Your task to perform on an android device: turn notification dots off Image 0: 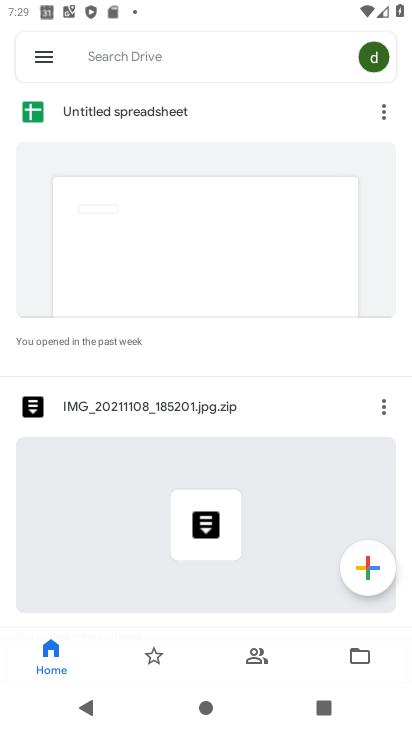
Step 0: press back button
Your task to perform on an android device: turn notification dots off Image 1: 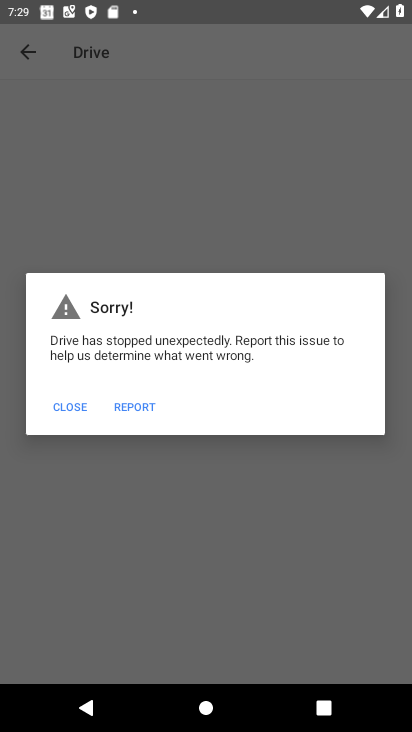
Step 1: press home button
Your task to perform on an android device: turn notification dots off Image 2: 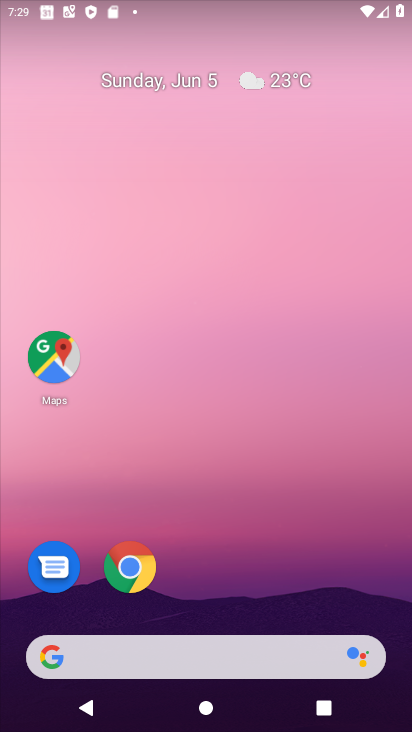
Step 2: drag from (384, 639) to (305, 94)
Your task to perform on an android device: turn notification dots off Image 3: 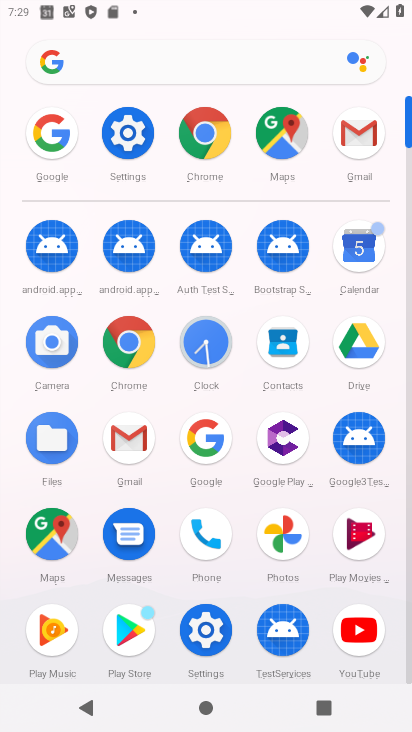
Step 3: click (130, 147)
Your task to perform on an android device: turn notification dots off Image 4: 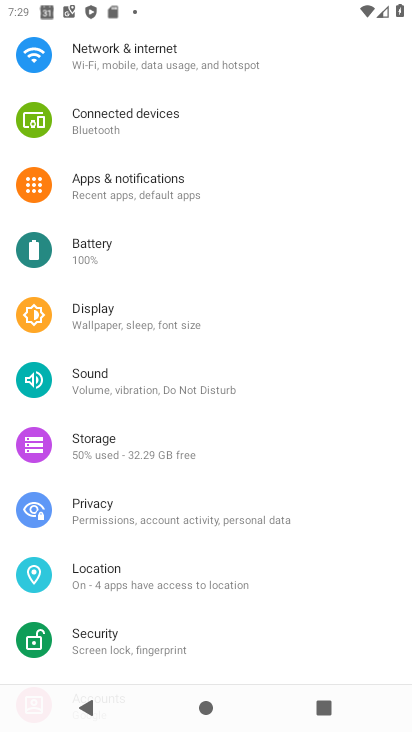
Step 4: click (159, 179)
Your task to perform on an android device: turn notification dots off Image 5: 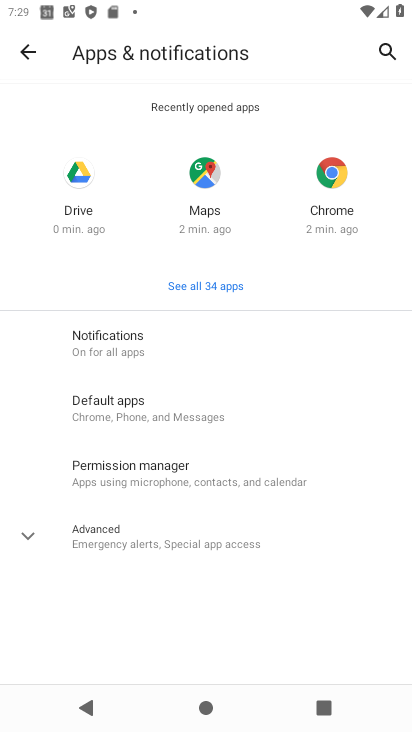
Step 5: click (223, 340)
Your task to perform on an android device: turn notification dots off Image 6: 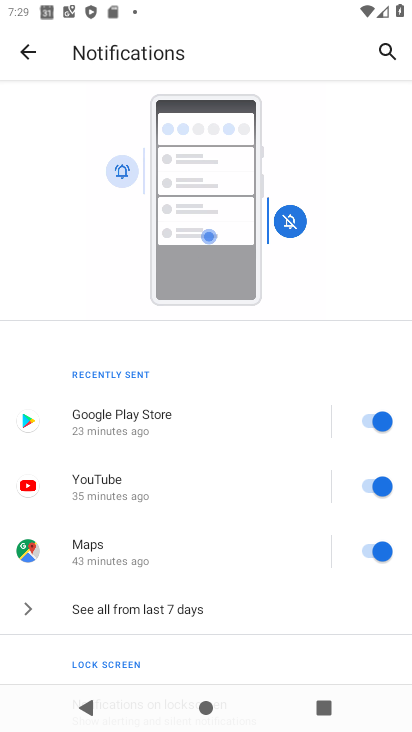
Step 6: drag from (214, 647) to (177, 139)
Your task to perform on an android device: turn notification dots off Image 7: 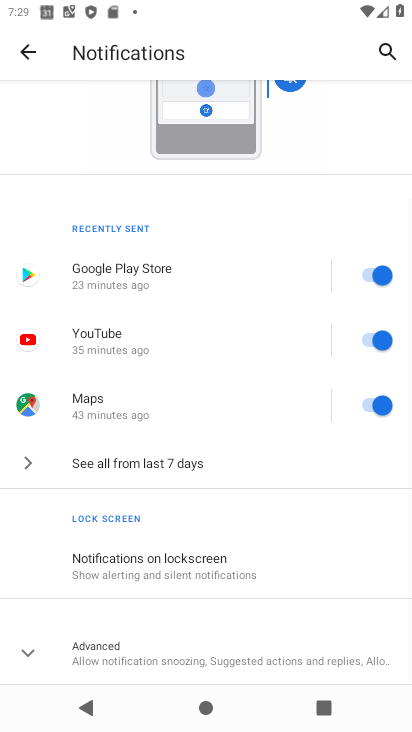
Step 7: click (179, 647)
Your task to perform on an android device: turn notification dots off Image 8: 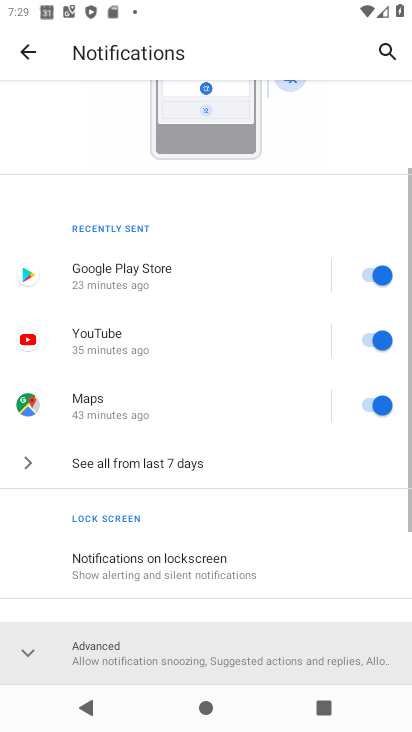
Step 8: drag from (202, 697) to (306, 274)
Your task to perform on an android device: turn notification dots off Image 9: 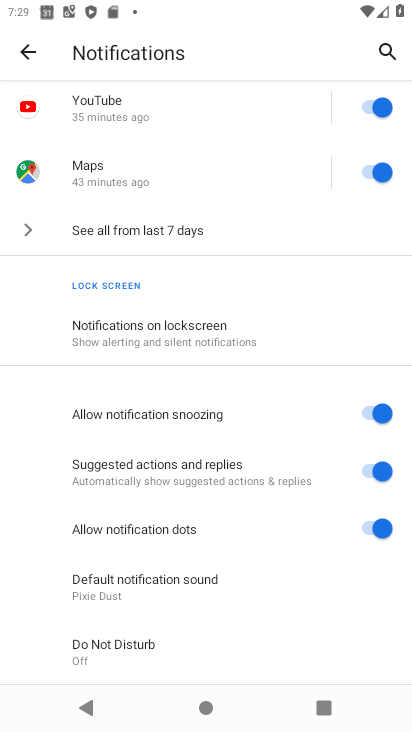
Step 9: click (247, 534)
Your task to perform on an android device: turn notification dots off Image 10: 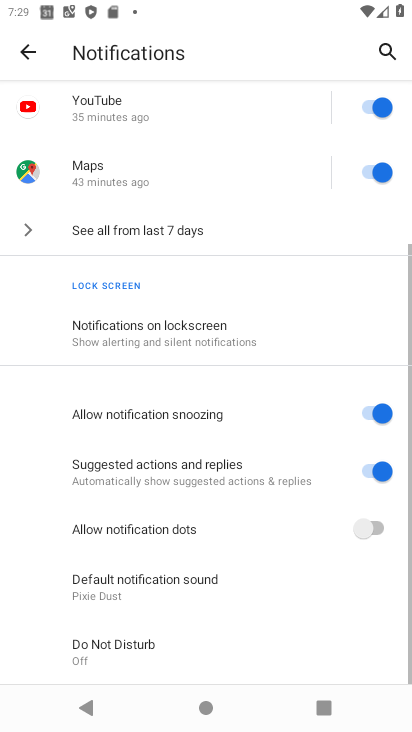
Step 10: task complete